Your task to perform on an android device: turn on translation in the chrome app Image 0: 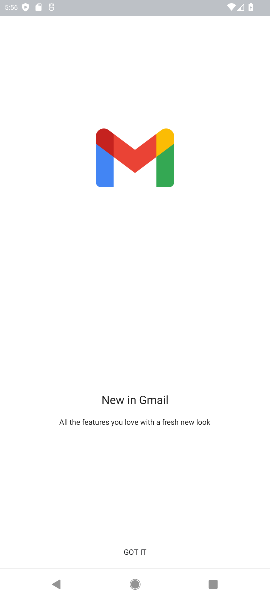
Step 0: press home button
Your task to perform on an android device: turn on translation in the chrome app Image 1: 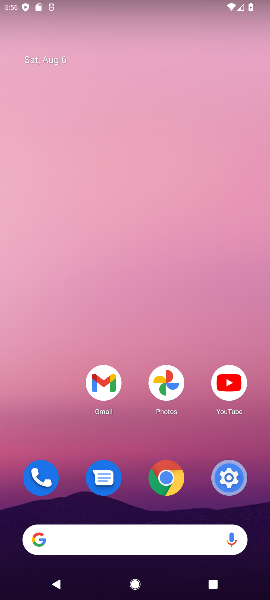
Step 1: click (160, 476)
Your task to perform on an android device: turn on translation in the chrome app Image 2: 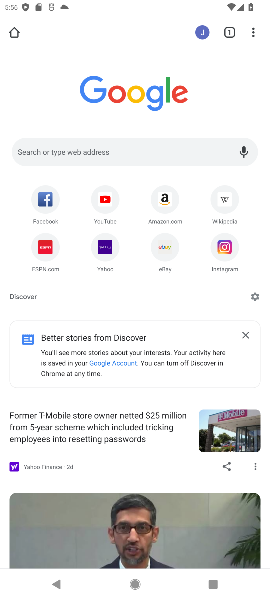
Step 2: click (253, 30)
Your task to perform on an android device: turn on translation in the chrome app Image 3: 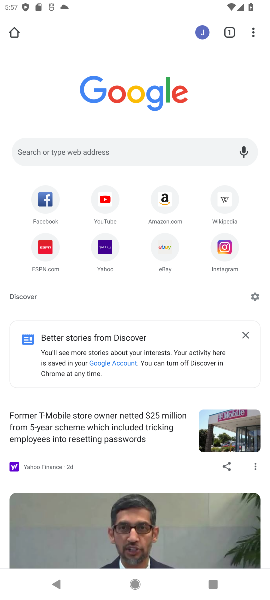
Step 3: click (251, 35)
Your task to perform on an android device: turn on translation in the chrome app Image 4: 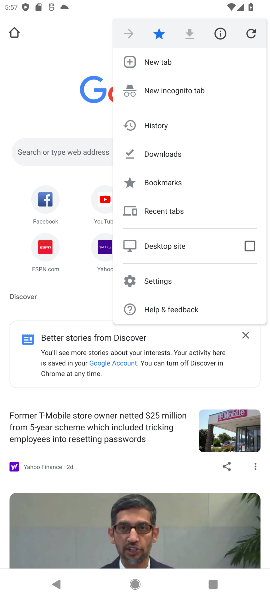
Step 4: click (156, 278)
Your task to perform on an android device: turn on translation in the chrome app Image 5: 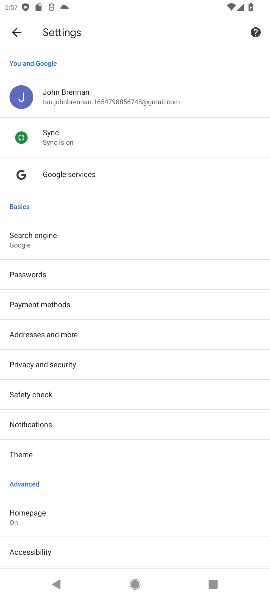
Step 5: drag from (205, 382) to (181, 157)
Your task to perform on an android device: turn on translation in the chrome app Image 6: 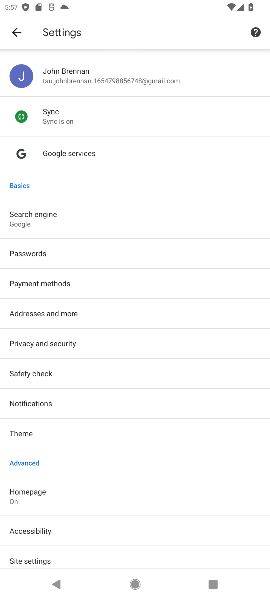
Step 6: drag from (156, 485) to (146, 277)
Your task to perform on an android device: turn on translation in the chrome app Image 7: 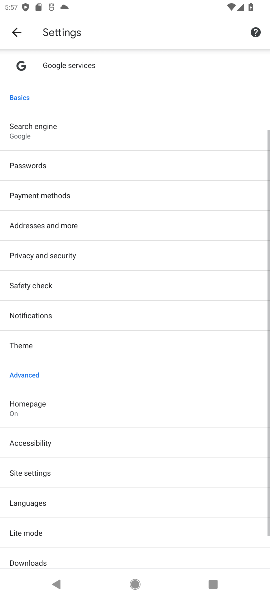
Step 7: click (131, 233)
Your task to perform on an android device: turn on translation in the chrome app Image 8: 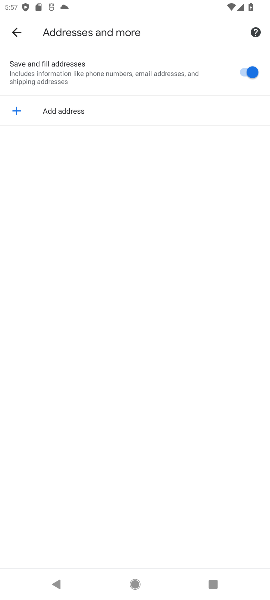
Step 8: drag from (158, 545) to (132, 345)
Your task to perform on an android device: turn on translation in the chrome app Image 9: 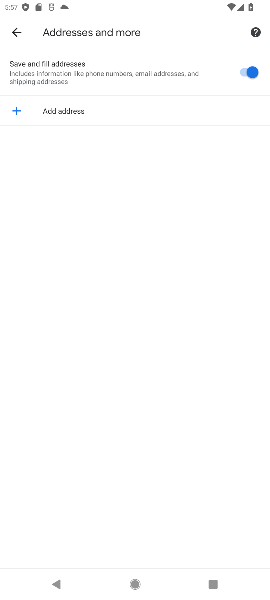
Step 9: click (18, 32)
Your task to perform on an android device: turn on translation in the chrome app Image 10: 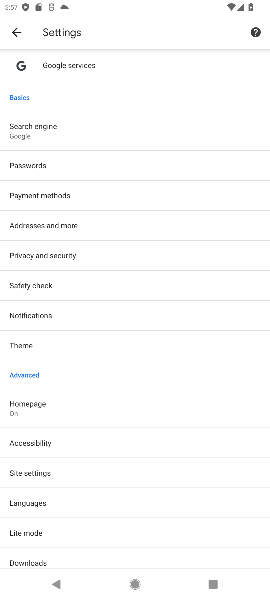
Step 10: click (48, 502)
Your task to perform on an android device: turn on translation in the chrome app Image 11: 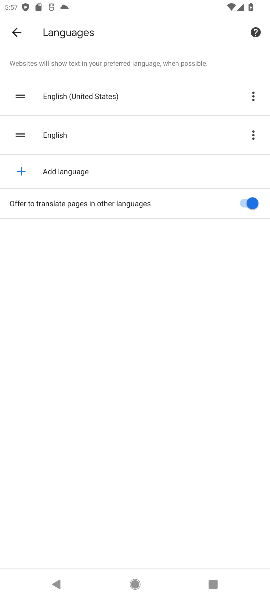
Step 11: task complete